Your task to perform on an android device: remove spam from my inbox in the gmail app Image 0: 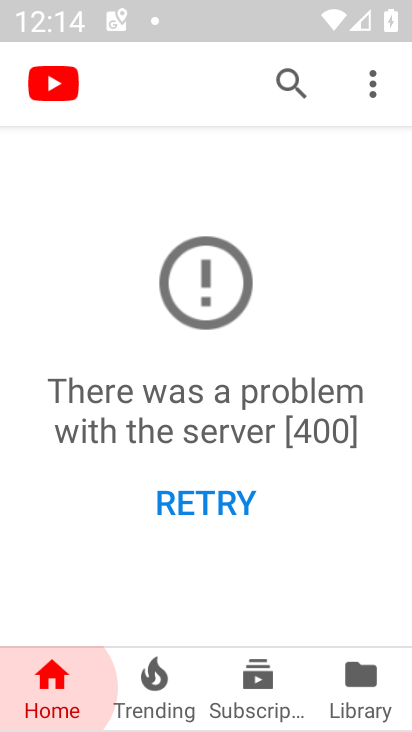
Step 0: press back button
Your task to perform on an android device: remove spam from my inbox in the gmail app Image 1: 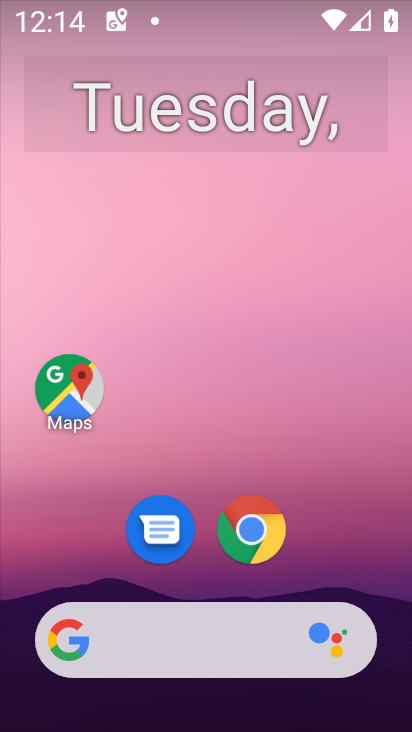
Step 1: drag from (249, 473) to (316, 57)
Your task to perform on an android device: remove spam from my inbox in the gmail app Image 2: 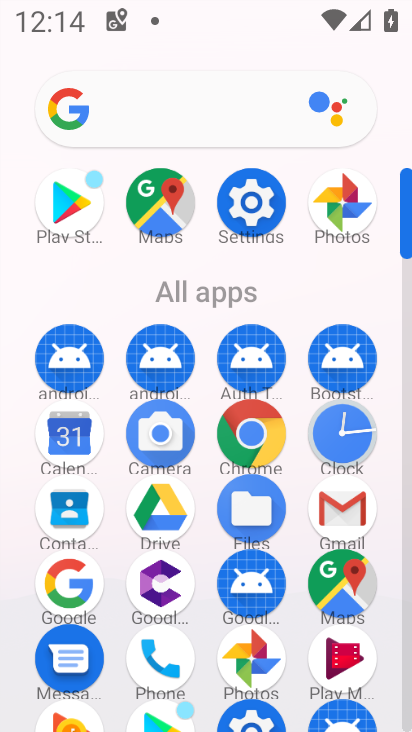
Step 2: click (342, 525)
Your task to perform on an android device: remove spam from my inbox in the gmail app Image 3: 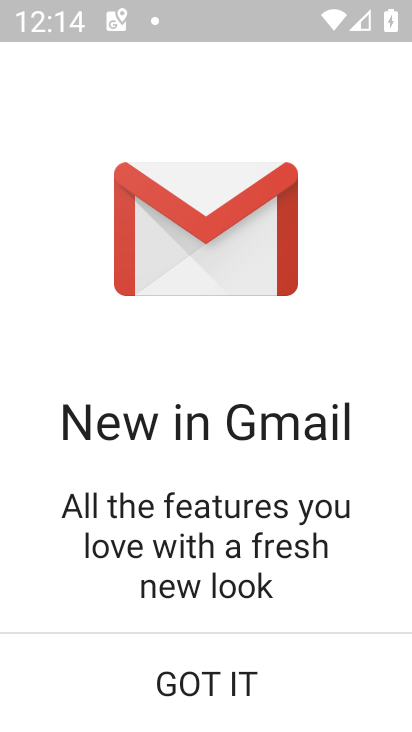
Step 3: click (150, 693)
Your task to perform on an android device: remove spam from my inbox in the gmail app Image 4: 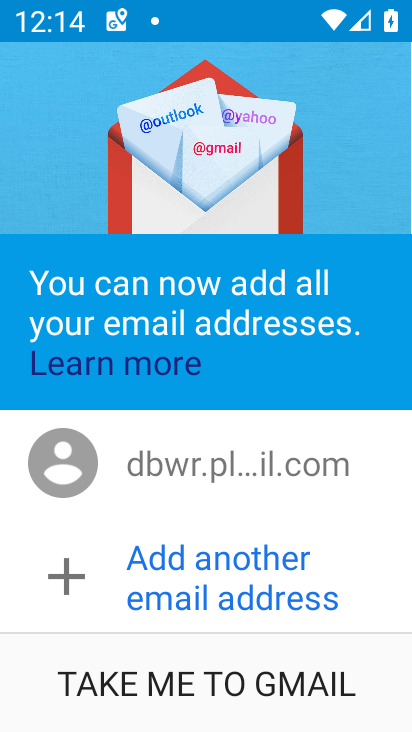
Step 4: click (171, 684)
Your task to perform on an android device: remove spam from my inbox in the gmail app Image 5: 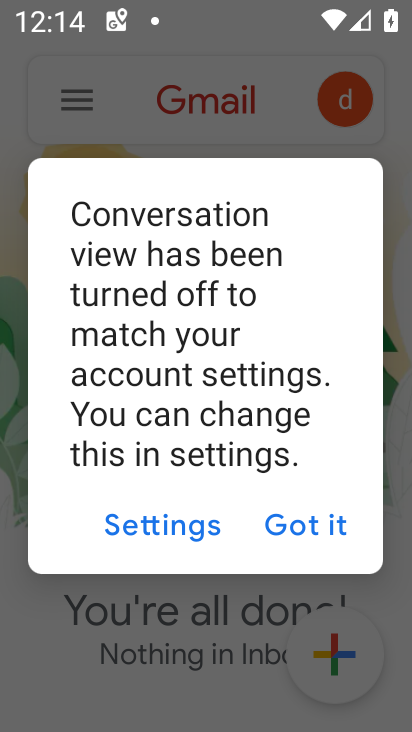
Step 5: click (325, 532)
Your task to perform on an android device: remove spam from my inbox in the gmail app Image 6: 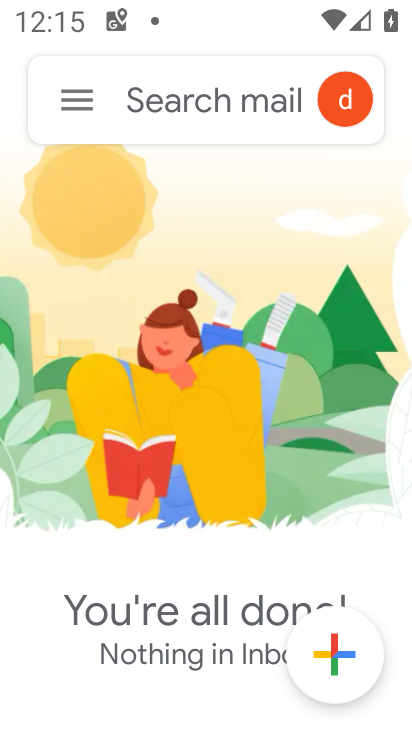
Step 6: click (83, 83)
Your task to perform on an android device: remove spam from my inbox in the gmail app Image 7: 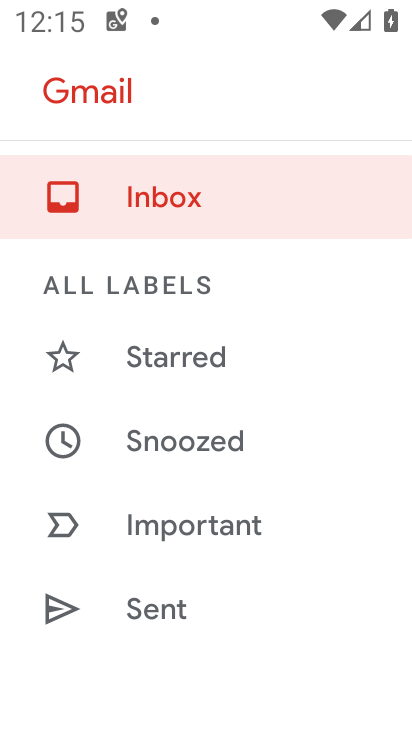
Step 7: drag from (152, 554) to (241, 67)
Your task to perform on an android device: remove spam from my inbox in the gmail app Image 8: 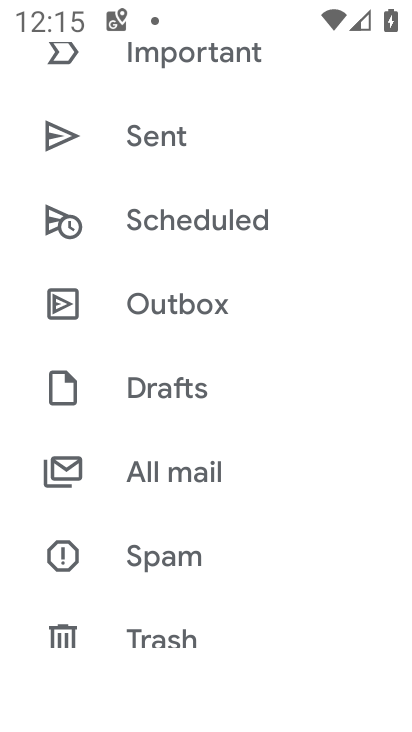
Step 8: click (135, 548)
Your task to perform on an android device: remove spam from my inbox in the gmail app Image 9: 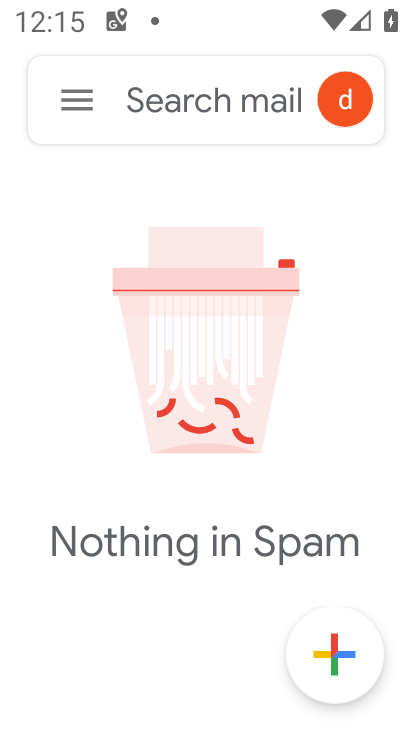
Step 9: task complete